Your task to perform on an android device: Open Google Chrome and click the shortcut for Amazon.com Image 0: 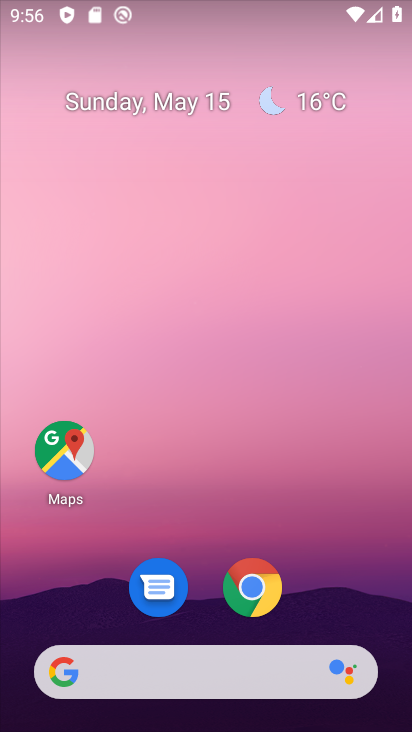
Step 0: drag from (290, 548) to (262, 31)
Your task to perform on an android device: Open Google Chrome and click the shortcut for Amazon.com Image 1: 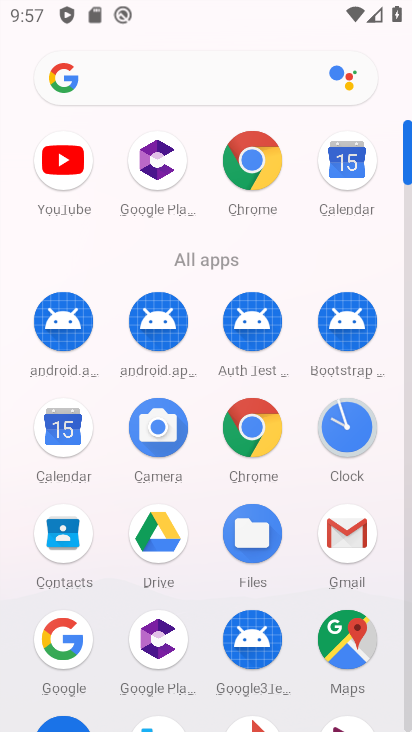
Step 1: drag from (7, 571) to (12, 190)
Your task to perform on an android device: Open Google Chrome and click the shortcut for Amazon.com Image 2: 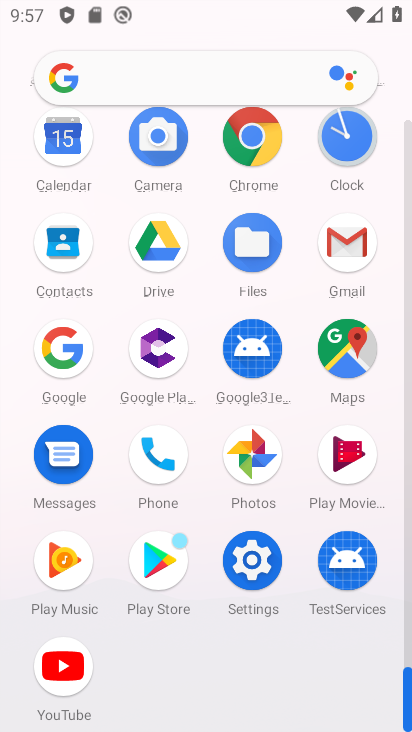
Step 2: click (252, 137)
Your task to perform on an android device: Open Google Chrome and click the shortcut for Amazon.com Image 3: 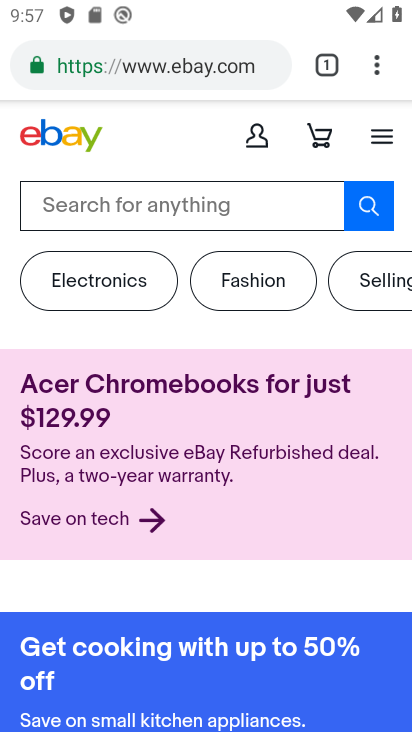
Step 3: drag from (374, 65) to (11, 572)
Your task to perform on an android device: Open Google Chrome and click the shortcut for Amazon.com Image 4: 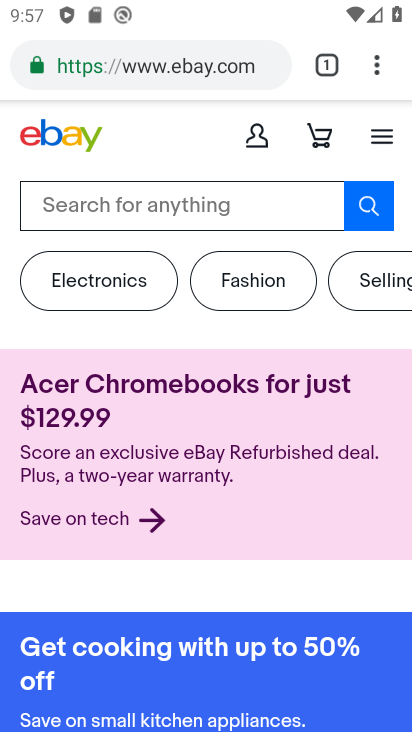
Step 4: click (208, 58)
Your task to perform on an android device: Open Google Chrome and click the shortcut for Amazon.com Image 5: 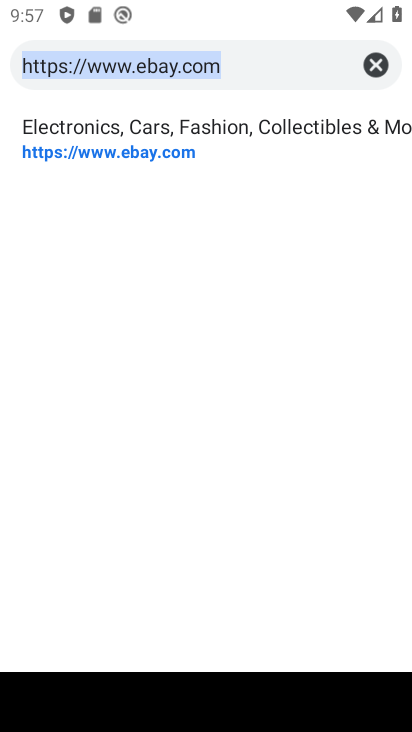
Step 5: click (373, 70)
Your task to perform on an android device: Open Google Chrome and click the shortcut for Amazon.com Image 6: 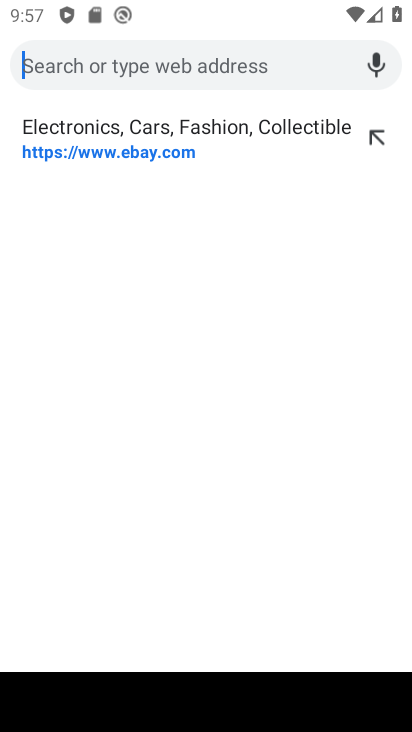
Step 6: type "amazon"
Your task to perform on an android device: Open Google Chrome and click the shortcut for Amazon.com Image 7: 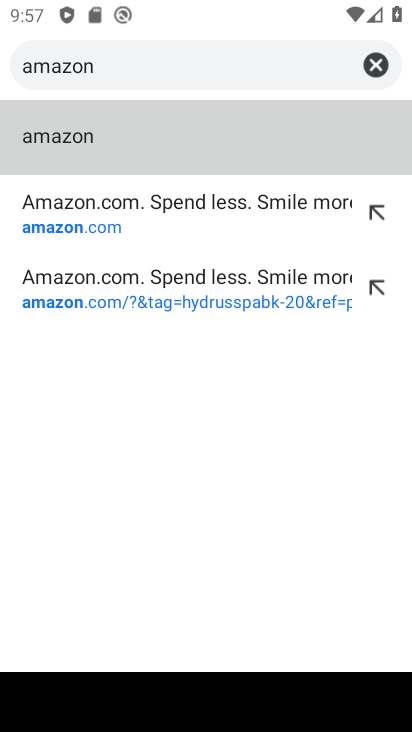
Step 7: click (102, 220)
Your task to perform on an android device: Open Google Chrome and click the shortcut for Amazon.com Image 8: 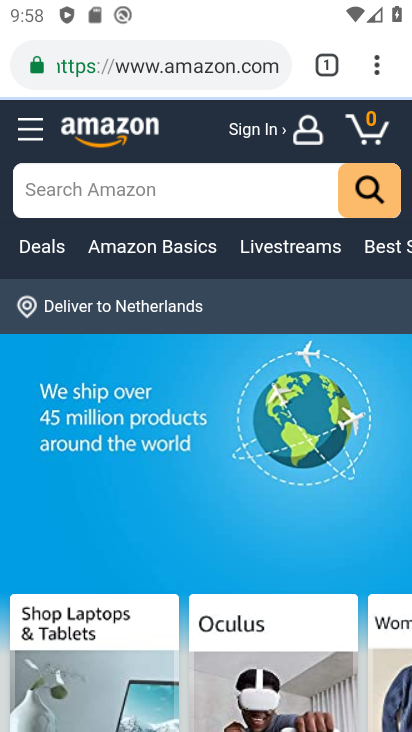
Step 8: drag from (379, 62) to (252, 603)
Your task to perform on an android device: Open Google Chrome and click the shortcut for Amazon.com Image 9: 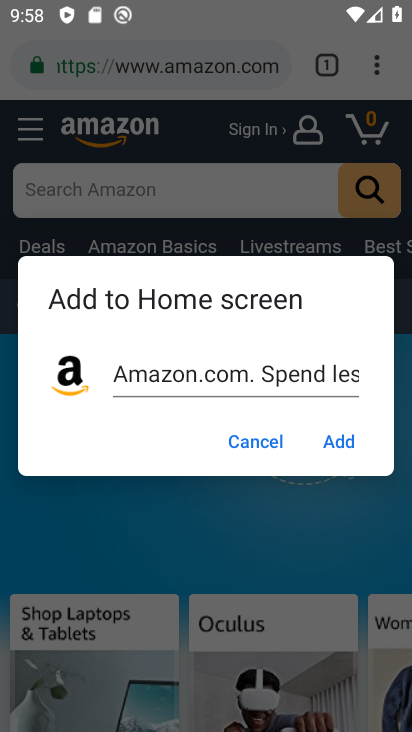
Step 9: click (336, 442)
Your task to perform on an android device: Open Google Chrome and click the shortcut for Amazon.com Image 10: 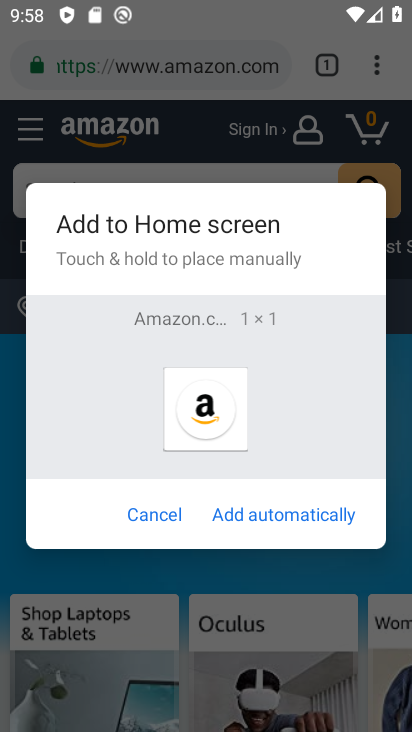
Step 10: click (285, 511)
Your task to perform on an android device: Open Google Chrome and click the shortcut for Amazon.com Image 11: 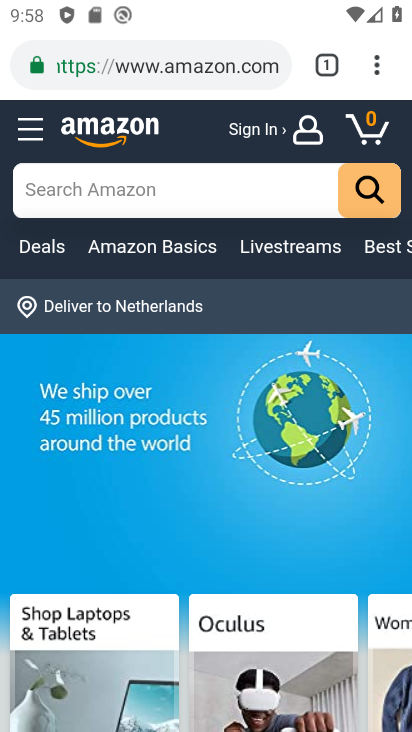
Step 11: task complete